Your task to perform on an android device: turn on showing notifications on the lock screen Image 0: 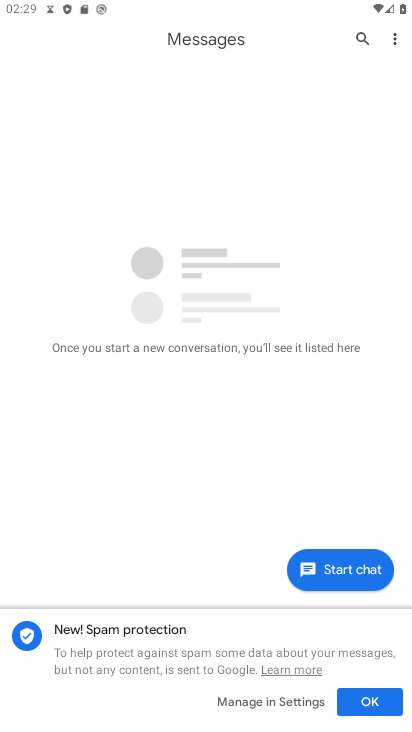
Step 0: press back button
Your task to perform on an android device: turn on showing notifications on the lock screen Image 1: 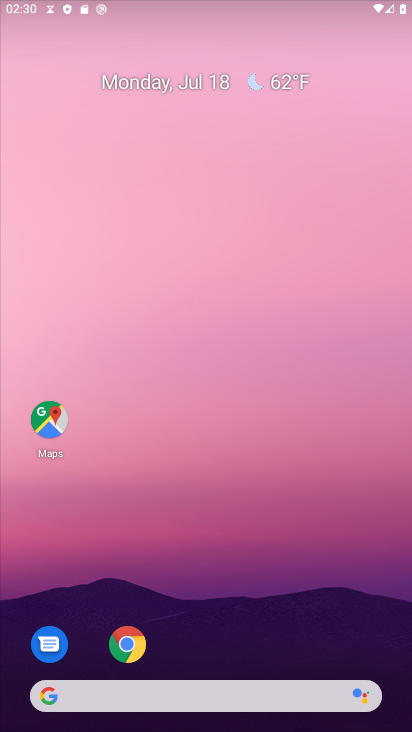
Step 1: drag from (276, 695) to (208, 185)
Your task to perform on an android device: turn on showing notifications on the lock screen Image 2: 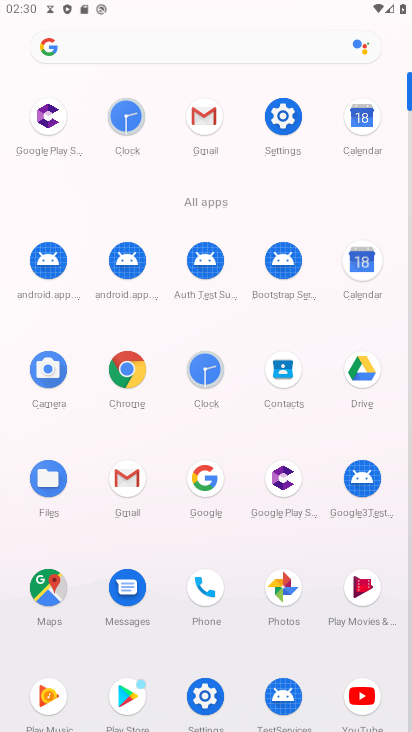
Step 2: click (210, 370)
Your task to perform on an android device: turn on showing notifications on the lock screen Image 3: 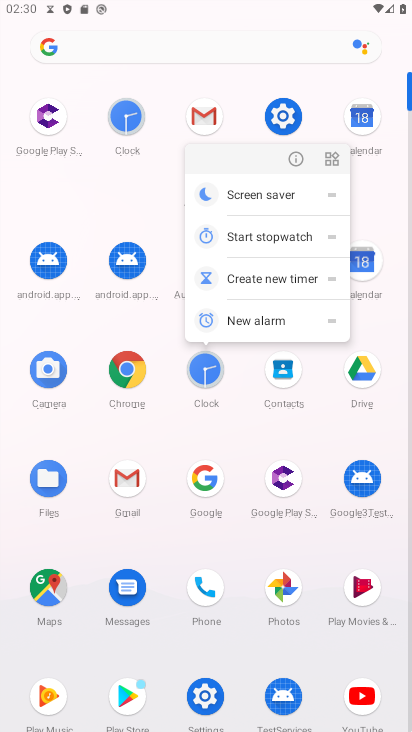
Step 3: click (277, 117)
Your task to perform on an android device: turn on showing notifications on the lock screen Image 4: 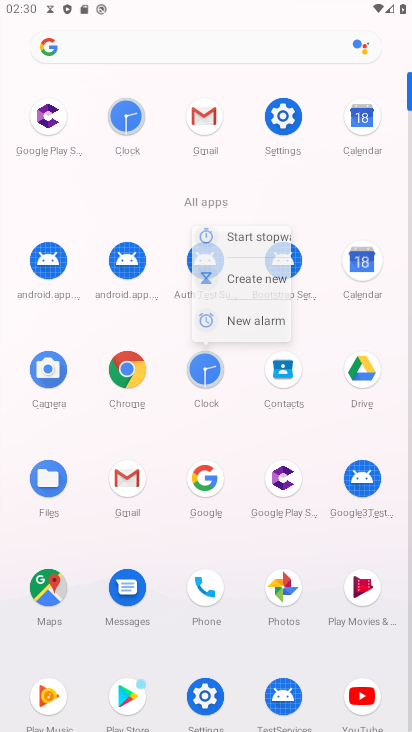
Step 4: click (279, 121)
Your task to perform on an android device: turn on showing notifications on the lock screen Image 5: 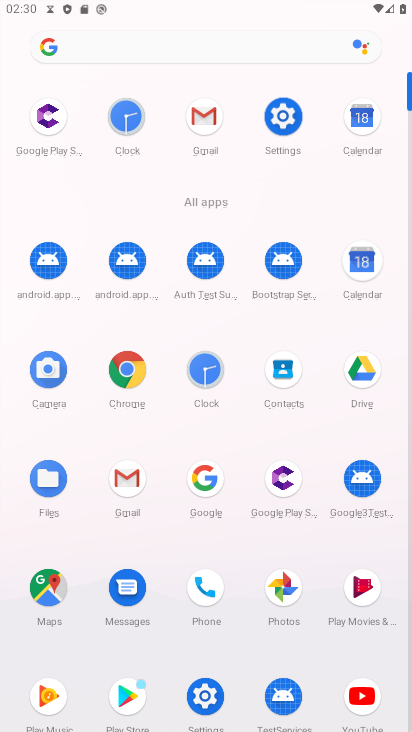
Step 5: click (283, 121)
Your task to perform on an android device: turn on showing notifications on the lock screen Image 6: 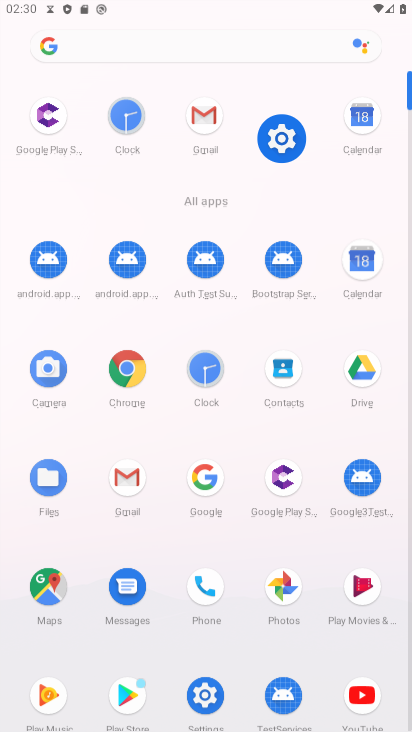
Step 6: click (283, 121)
Your task to perform on an android device: turn on showing notifications on the lock screen Image 7: 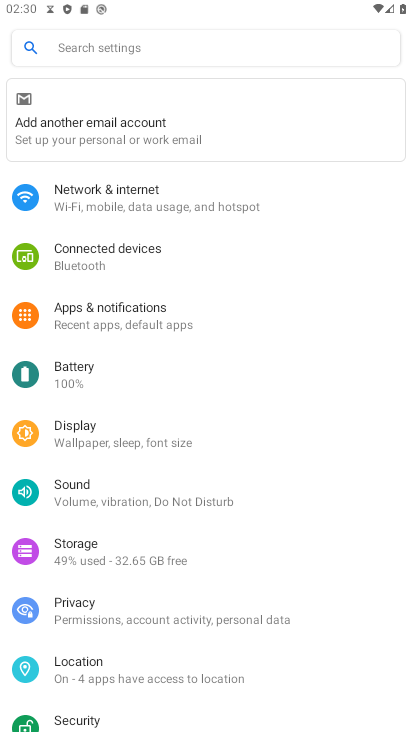
Step 7: drag from (126, 666) to (103, 315)
Your task to perform on an android device: turn on showing notifications on the lock screen Image 8: 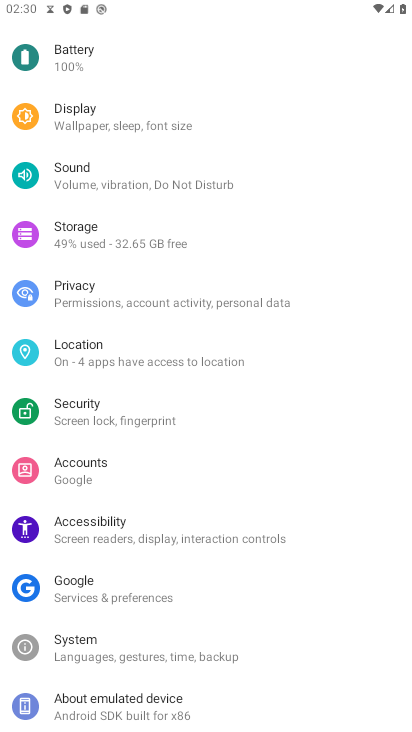
Step 8: drag from (135, 495) to (119, 432)
Your task to perform on an android device: turn on showing notifications on the lock screen Image 9: 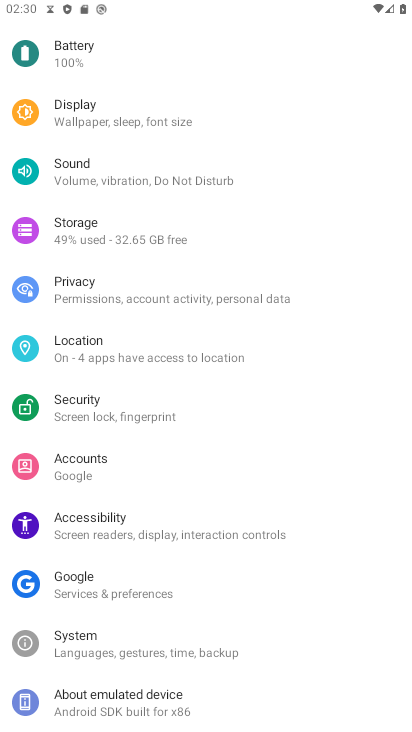
Step 9: drag from (120, 243) to (136, 558)
Your task to perform on an android device: turn on showing notifications on the lock screen Image 10: 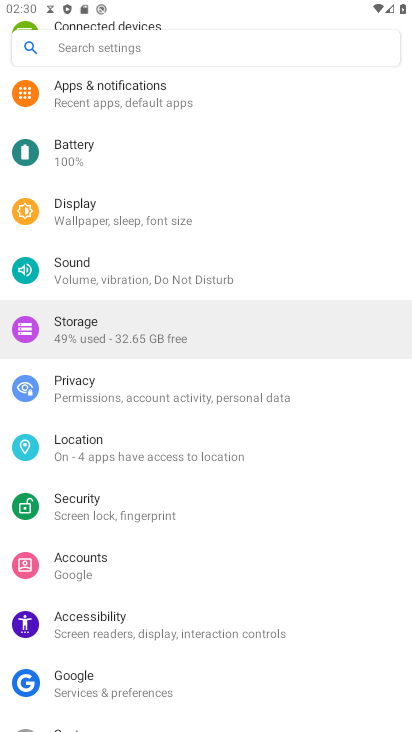
Step 10: drag from (123, 357) to (155, 540)
Your task to perform on an android device: turn on showing notifications on the lock screen Image 11: 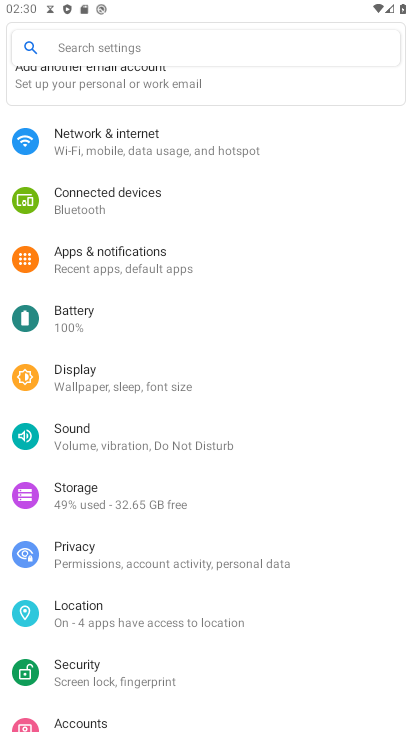
Step 11: drag from (126, 217) to (151, 405)
Your task to perform on an android device: turn on showing notifications on the lock screen Image 12: 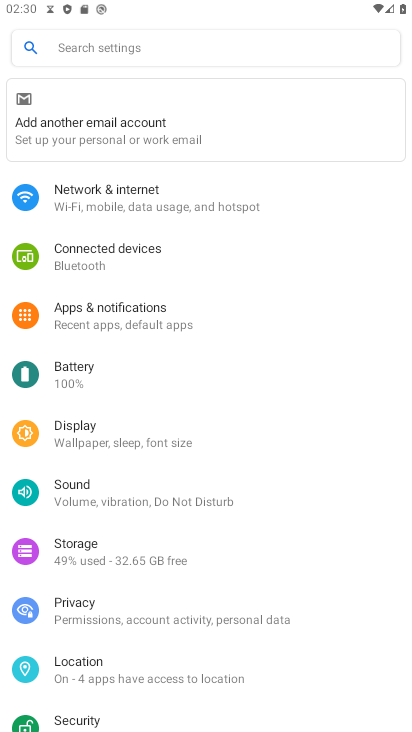
Step 12: click (98, 251)
Your task to perform on an android device: turn on showing notifications on the lock screen Image 13: 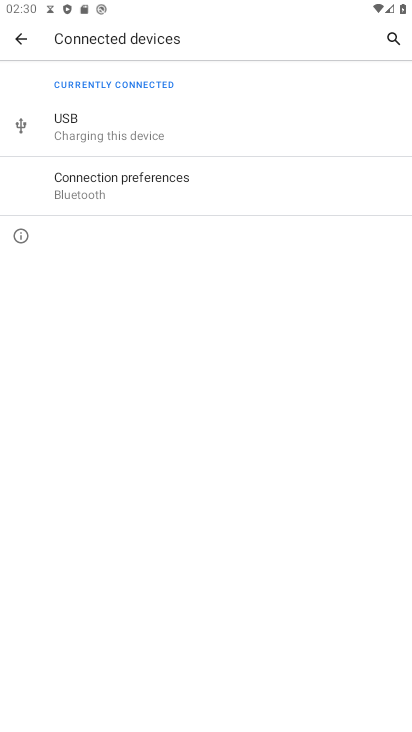
Step 13: click (19, 33)
Your task to perform on an android device: turn on showing notifications on the lock screen Image 14: 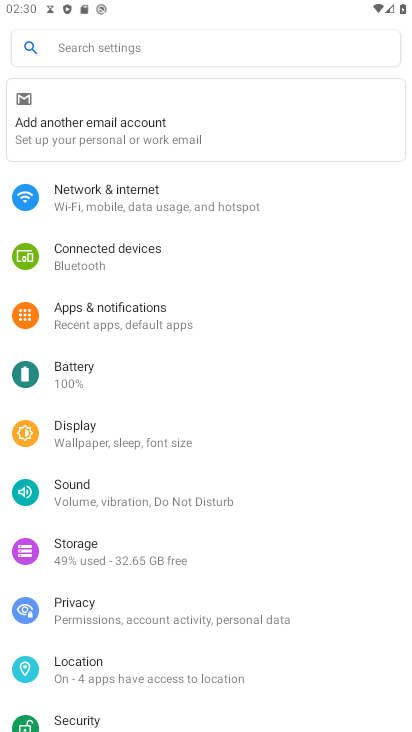
Step 14: click (108, 321)
Your task to perform on an android device: turn on showing notifications on the lock screen Image 15: 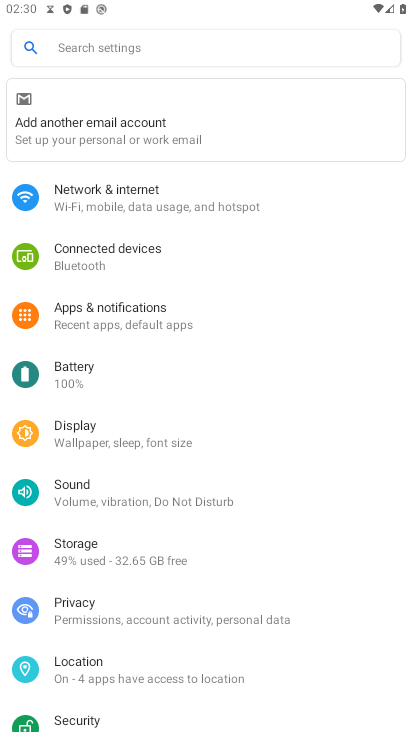
Step 15: click (108, 321)
Your task to perform on an android device: turn on showing notifications on the lock screen Image 16: 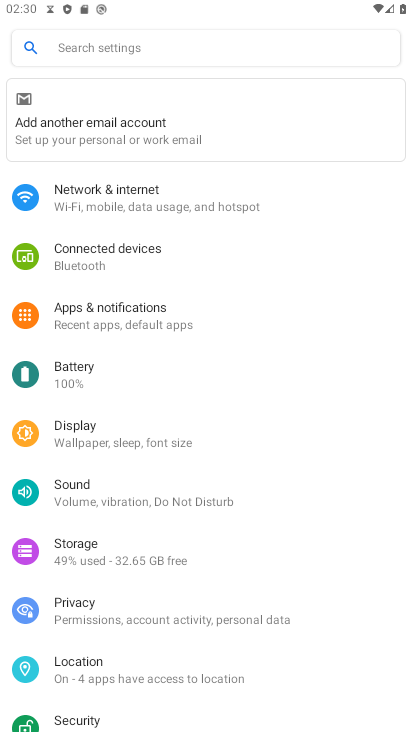
Step 16: click (108, 321)
Your task to perform on an android device: turn on showing notifications on the lock screen Image 17: 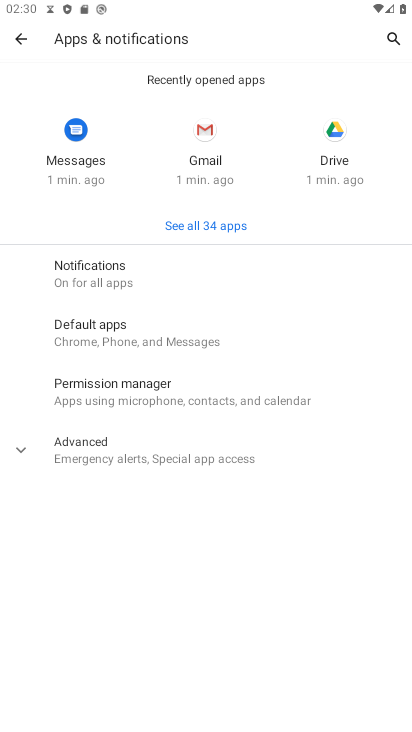
Step 17: click (86, 274)
Your task to perform on an android device: turn on showing notifications on the lock screen Image 18: 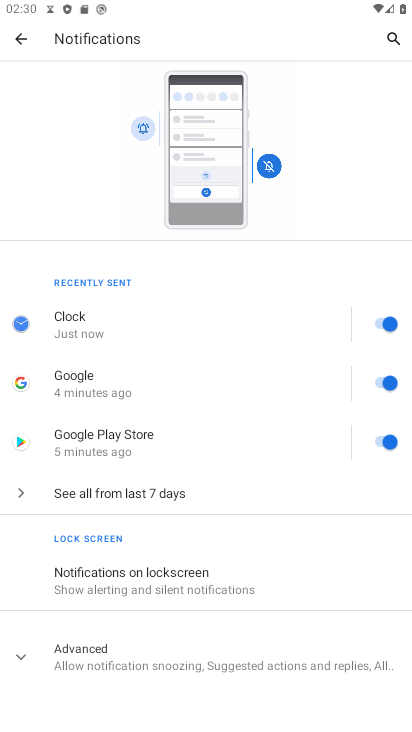
Step 18: drag from (149, 658) to (132, 386)
Your task to perform on an android device: turn on showing notifications on the lock screen Image 19: 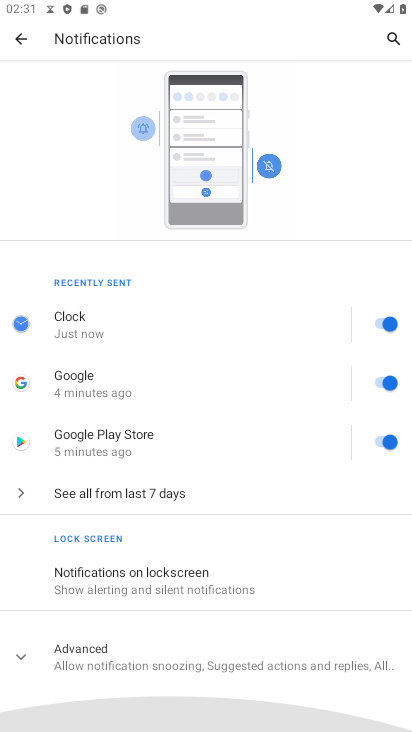
Step 19: drag from (237, 619) to (200, 418)
Your task to perform on an android device: turn on showing notifications on the lock screen Image 20: 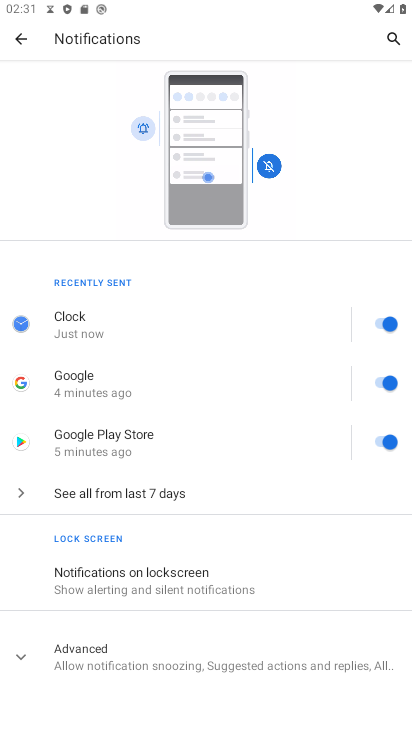
Step 20: click (176, 585)
Your task to perform on an android device: turn on showing notifications on the lock screen Image 21: 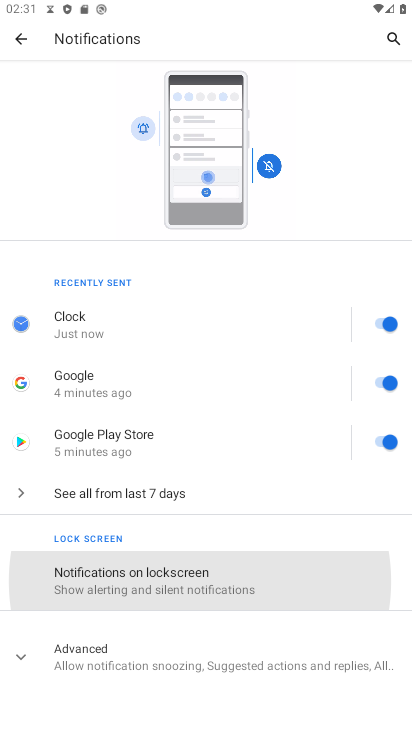
Step 21: click (176, 585)
Your task to perform on an android device: turn on showing notifications on the lock screen Image 22: 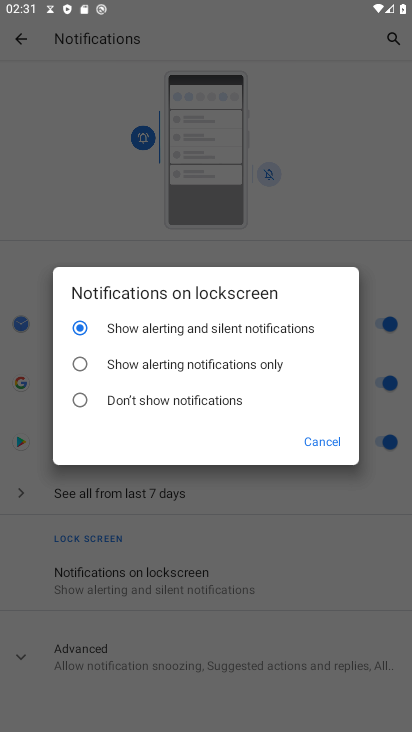
Step 22: click (316, 447)
Your task to perform on an android device: turn on showing notifications on the lock screen Image 23: 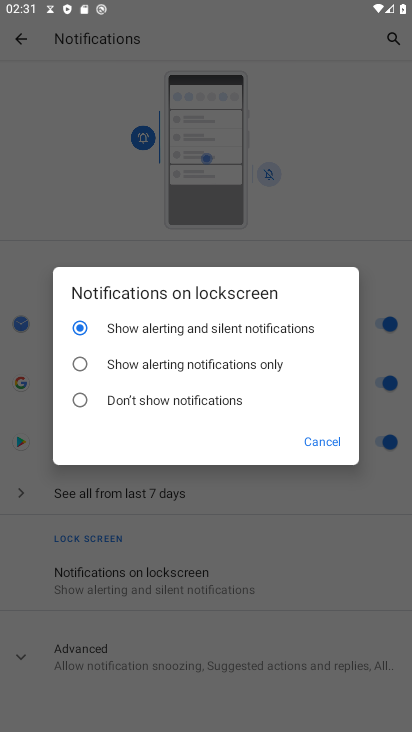
Step 23: task complete